Your task to perform on an android device: choose inbox layout in the gmail app Image 0: 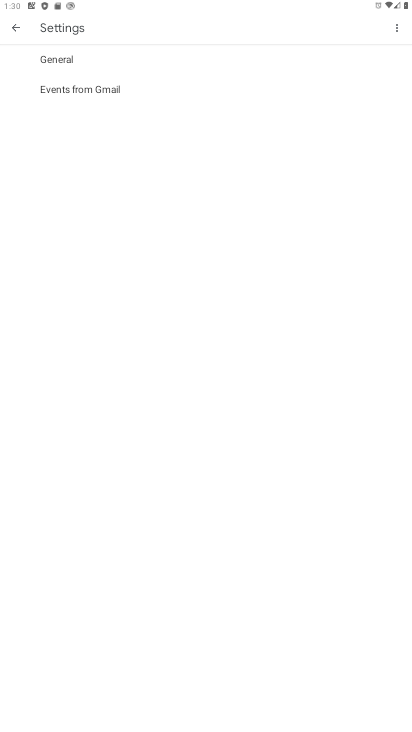
Step 0: press home button
Your task to perform on an android device: choose inbox layout in the gmail app Image 1: 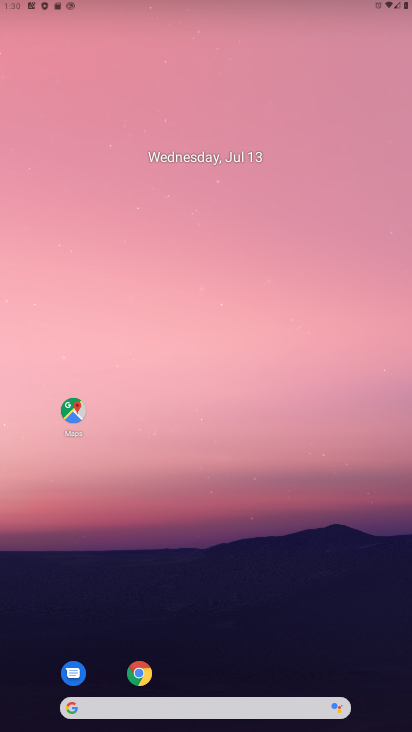
Step 1: drag from (252, 669) to (325, 208)
Your task to perform on an android device: choose inbox layout in the gmail app Image 2: 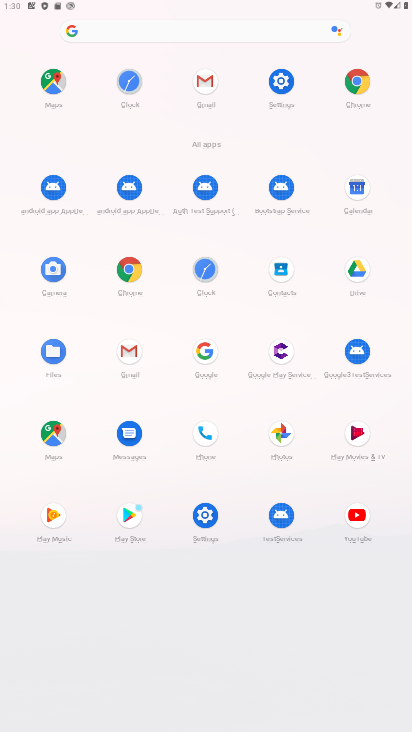
Step 2: click (204, 81)
Your task to perform on an android device: choose inbox layout in the gmail app Image 3: 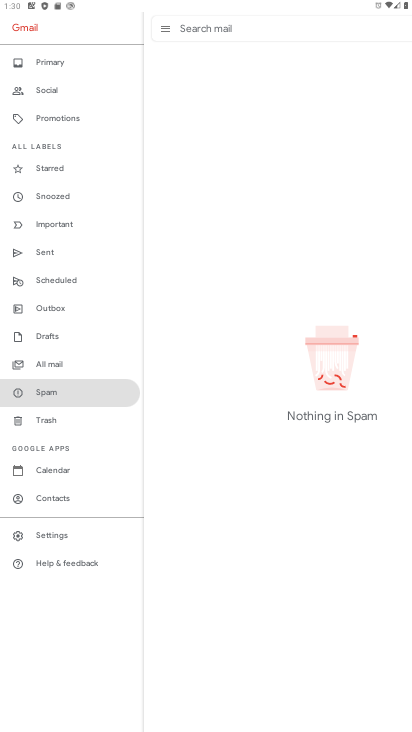
Step 3: drag from (51, 373) to (190, 65)
Your task to perform on an android device: choose inbox layout in the gmail app Image 4: 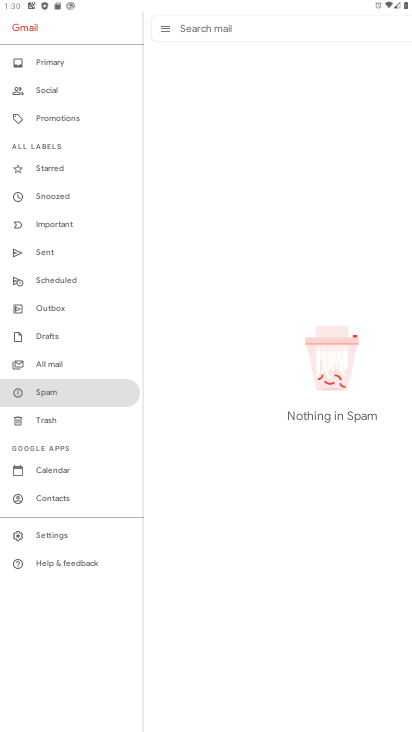
Step 4: click (28, 522)
Your task to perform on an android device: choose inbox layout in the gmail app Image 5: 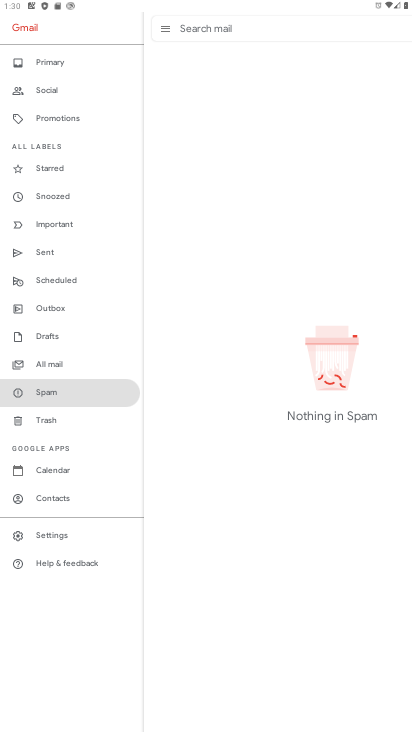
Step 5: click (47, 540)
Your task to perform on an android device: choose inbox layout in the gmail app Image 6: 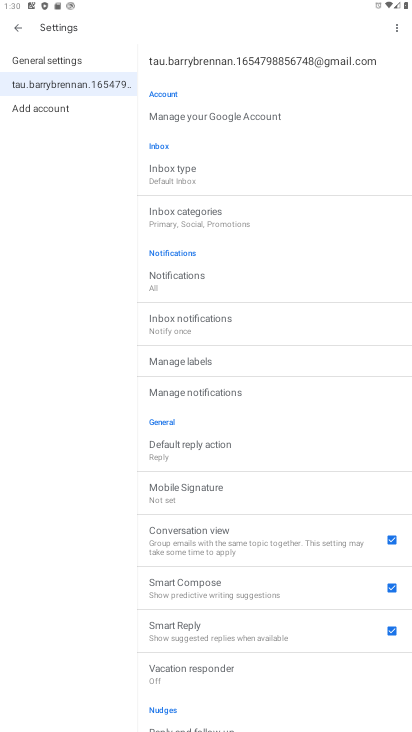
Step 6: click (181, 178)
Your task to perform on an android device: choose inbox layout in the gmail app Image 7: 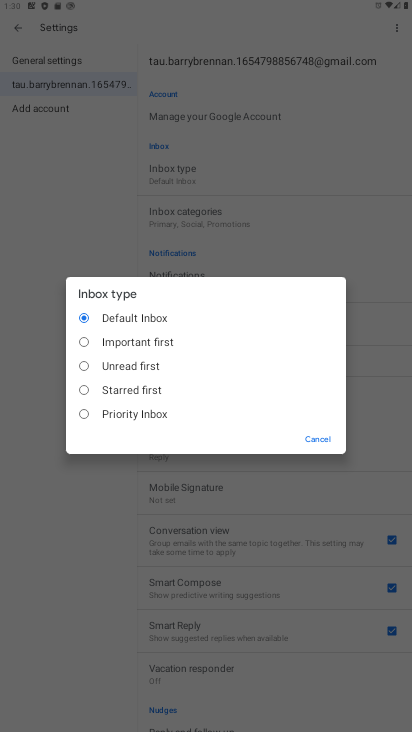
Step 7: click (81, 412)
Your task to perform on an android device: choose inbox layout in the gmail app Image 8: 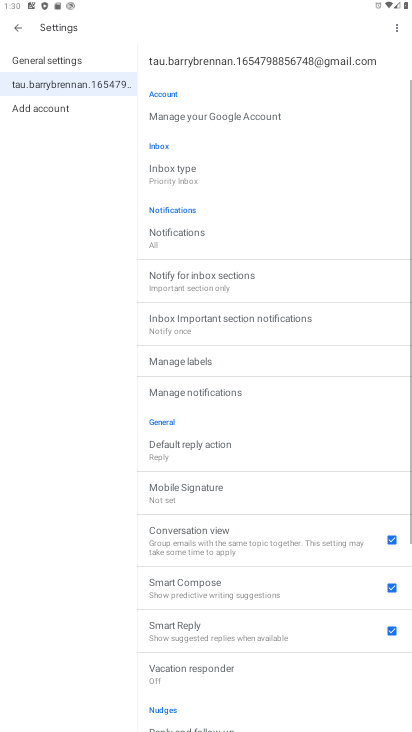
Step 8: task complete